Your task to perform on an android device: Play the last video I watched on Youtube Image 0: 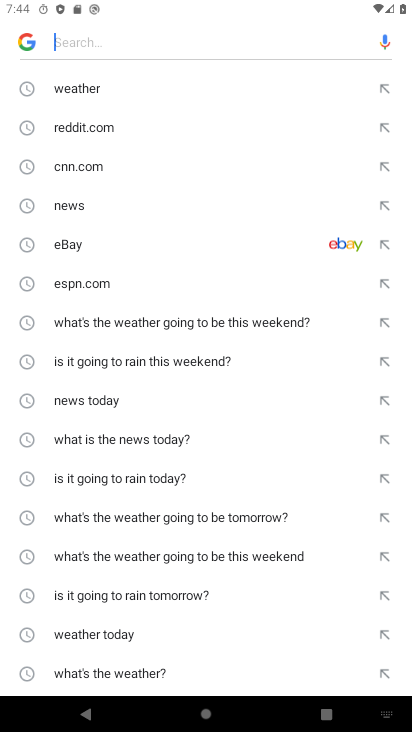
Step 0: press home button
Your task to perform on an android device: Play the last video I watched on Youtube Image 1: 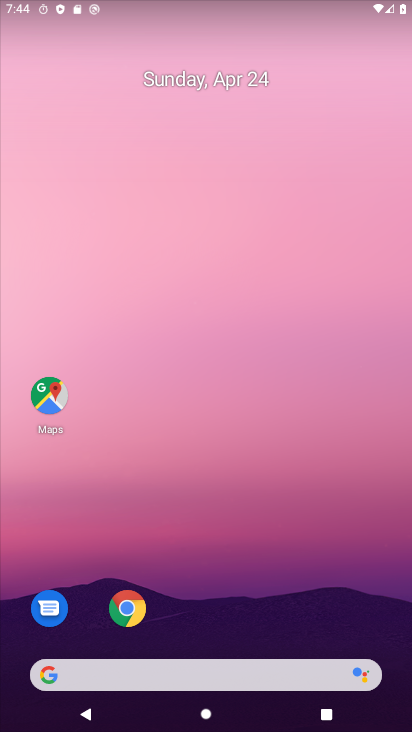
Step 1: drag from (229, 619) to (307, 89)
Your task to perform on an android device: Play the last video I watched on Youtube Image 2: 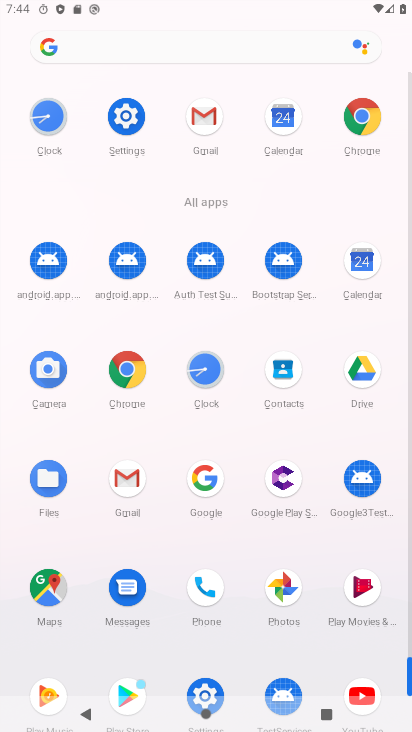
Step 2: click (364, 685)
Your task to perform on an android device: Play the last video I watched on Youtube Image 3: 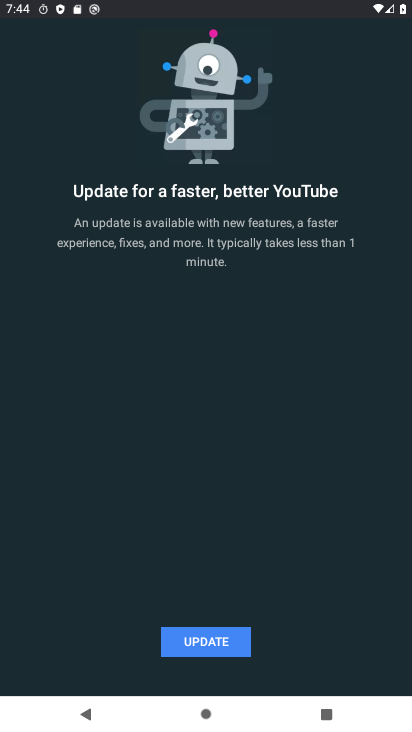
Step 3: click (240, 646)
Your task to perform on an android device: Play the last video I watched on Youtube Image 4: 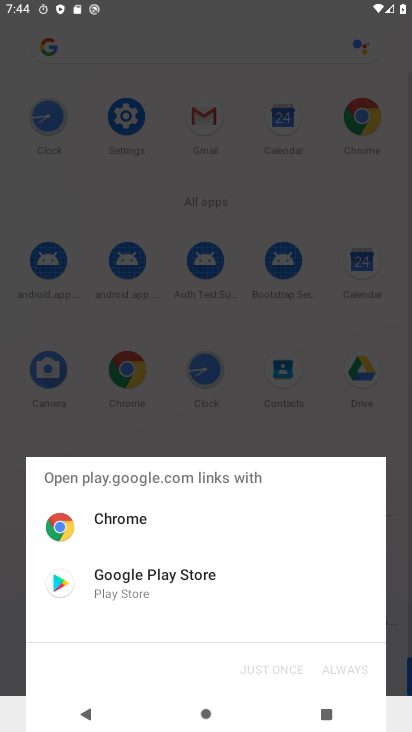
Step 4: click (207, 580)
Your task to perform on an android device: Play the last video I watched on Youtube Image 5: 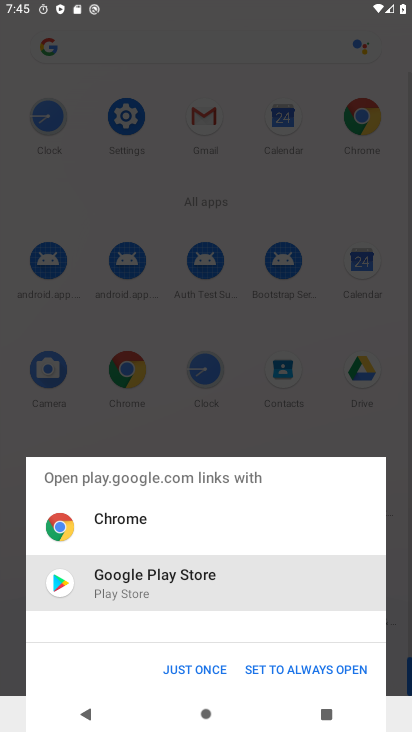
Step 5: click (184, 663)
Your task to perform on an android device: Play the last video I watched on Youtube Image 6: 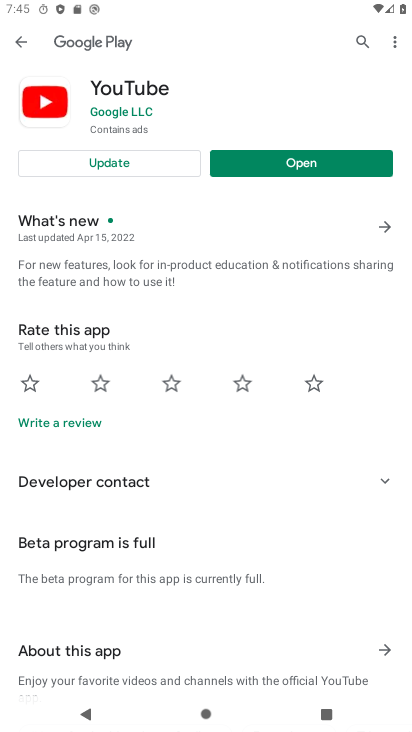
Step 6: click (334, 157)
Your task to perform on an android device: Play the last video I watched on Youtube Image 7: 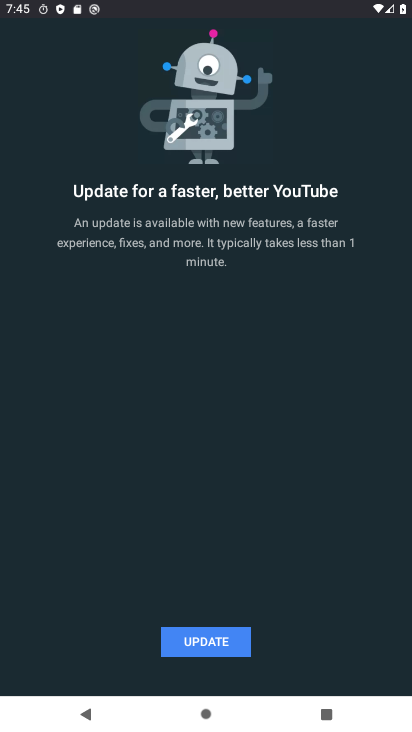
Step 7: click (211, 632)
Your task to perform on an android device: Play the last video I watched on Youtube Image 8: 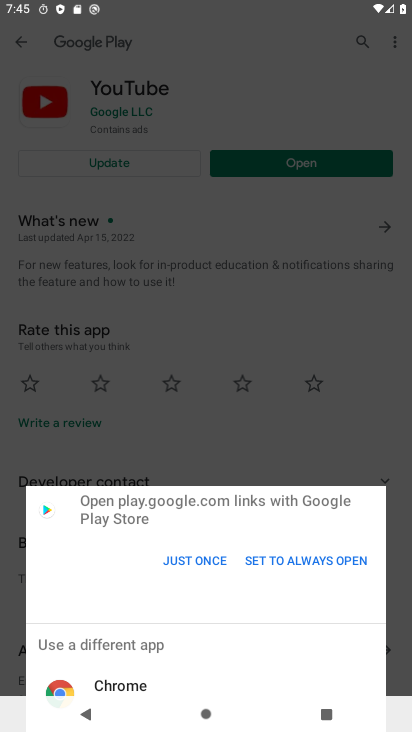
Step 8: click (203, 553)
Your task to perform on an android device: Play the last video I watched on Youtube Image 9: 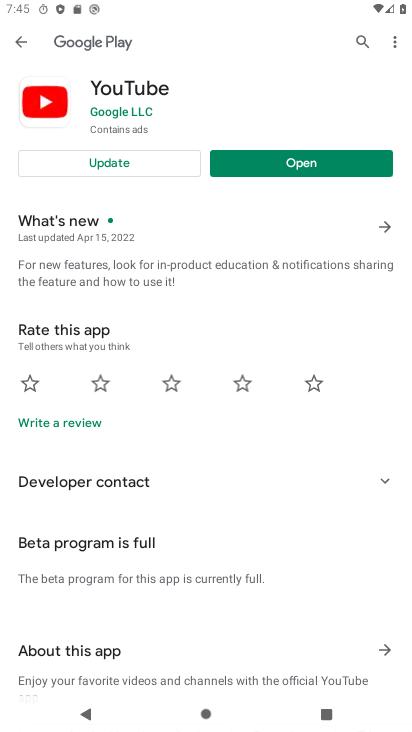
Step 9: click (162, 158)
Your task to perform on an android device: Play the last video I watched on Youtube Image 10: 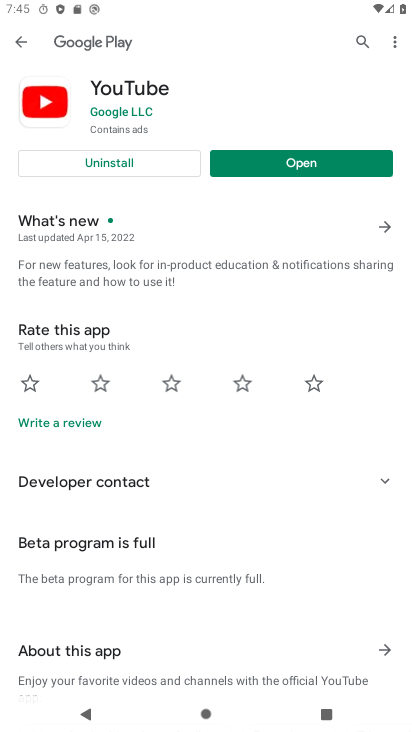
Step 10: click (308, 160)
Your task to perform on an android device: Play the last video I watched on Youtube Image 11: 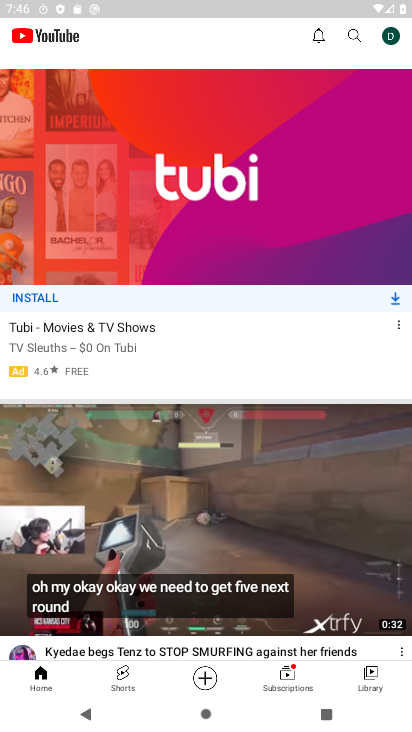
Step 11: click (372, 670)
Your task to perform on an android device: Play the last video I watched on Youtube Image 12: 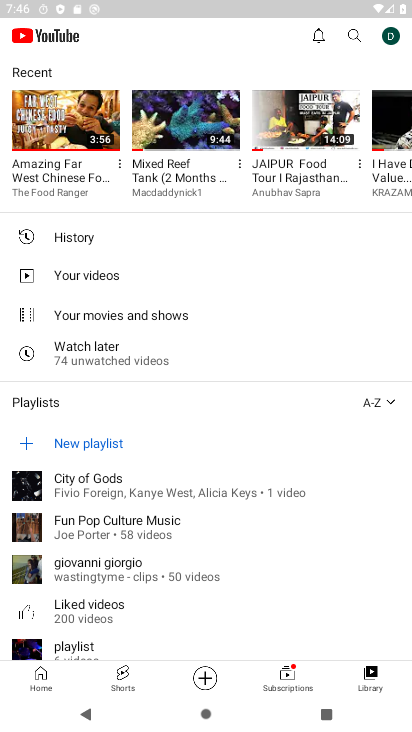
Step 12: click (87, 232)
Your task to perform on an android device: Play the last video I watched on Youtube Image 13: 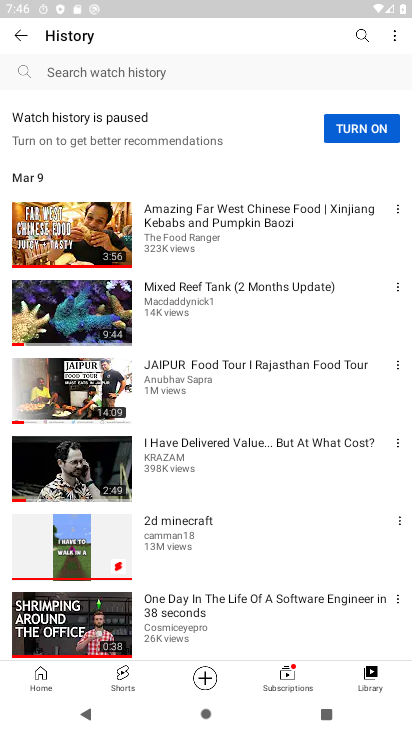
Step 13: click (87, 232)
Your task to perform on an android device: Play the last video I watched on Youtube Image 14: 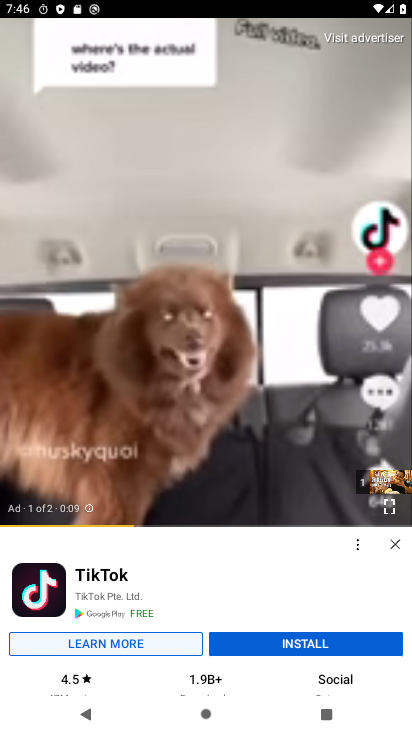
Step 14: task complete